Your task to perform on an android device: check battery use Image 0: 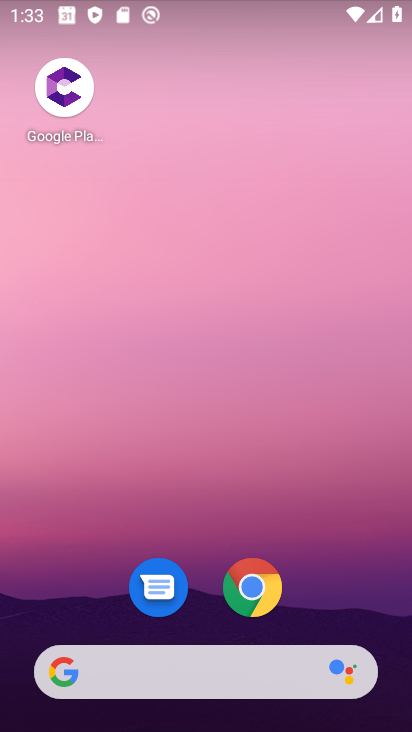
Step 0: drag from (74, 628) to (179, 171)
Your task to perform on an android device: check battery use Image 1: 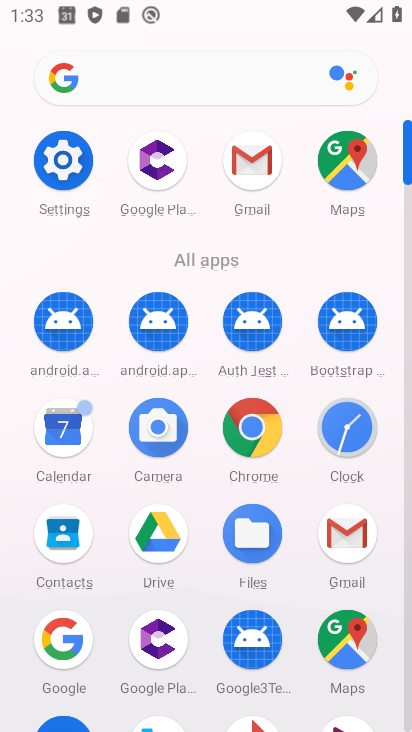
Step 1: drag from (220, 599) to (324, 260)
Your task to perform on an android device: check battery use Image 2: 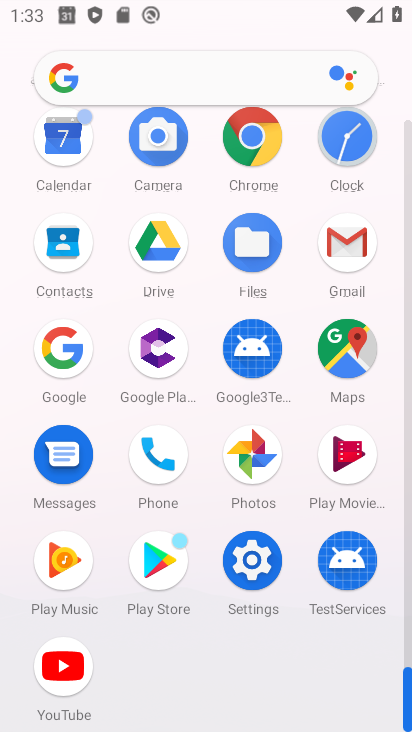
Step 2: click (248, 580)
Your task to perform on an android device: check battery use Image 3: 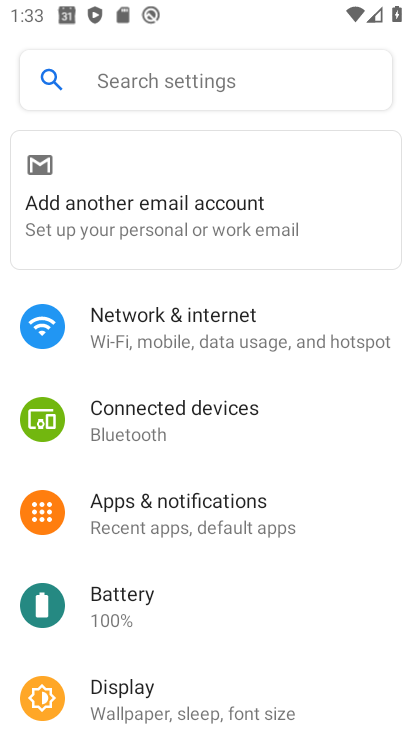
Step 3: click (158, 618)
Your task to perform on an android device: check battery use Image 4: 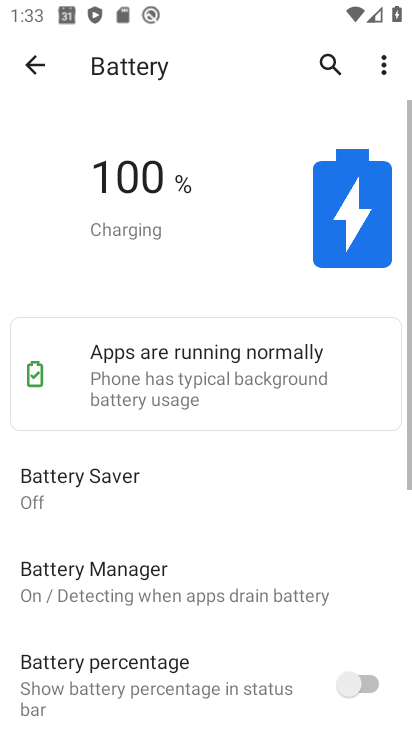
Step 4: click (394, 60)
Your task to perform on an android device: check battery use Image 5: 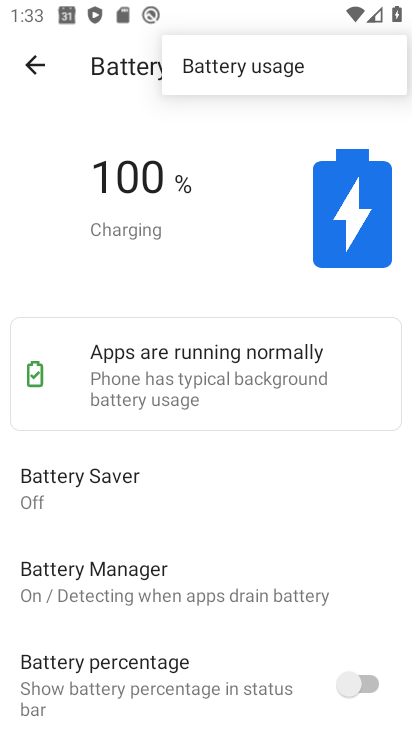
Step 5: click (367, 73)
Your task to perform on an android device: check battery use Image 6: 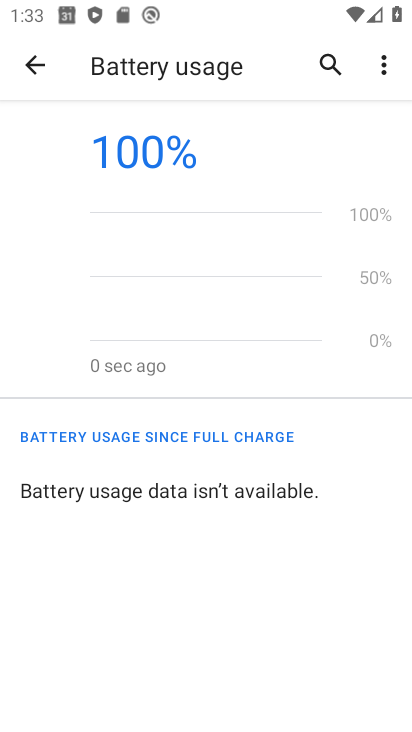
Step 6: task complete